Your task to perform on an android device: add a contact in the contacts app Image 0: 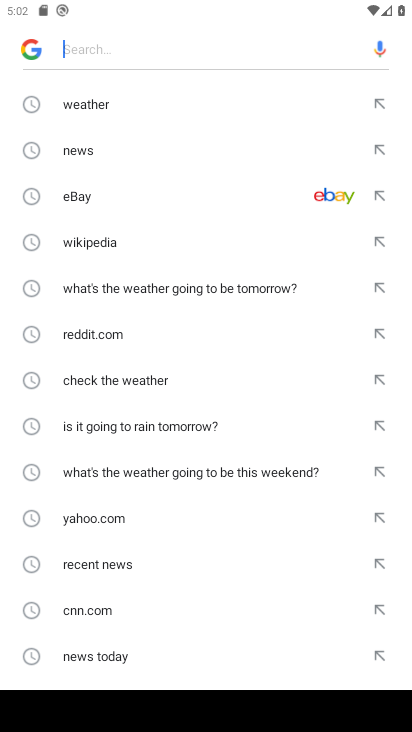
Step 0: press home button
Your task to perform on an android device: add a contact in the contacts app Image 1: 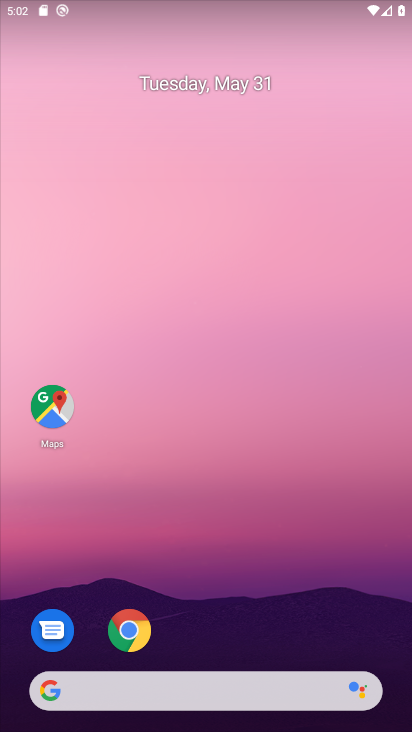
Step 1: drag from (236, 608) to (399, 307)
Your task to perform on an android device: add a contact in the contacts app Image 2: 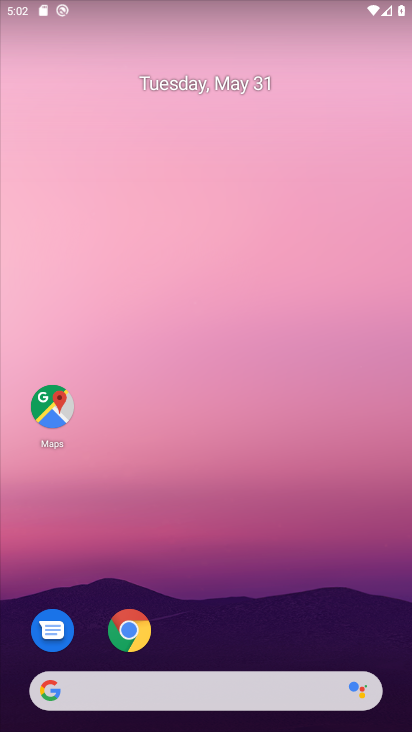
Step 2: drag from (239, 654) to (132, 37)
Your task to perform on an android device: add a contact in the contacts app Image 3: 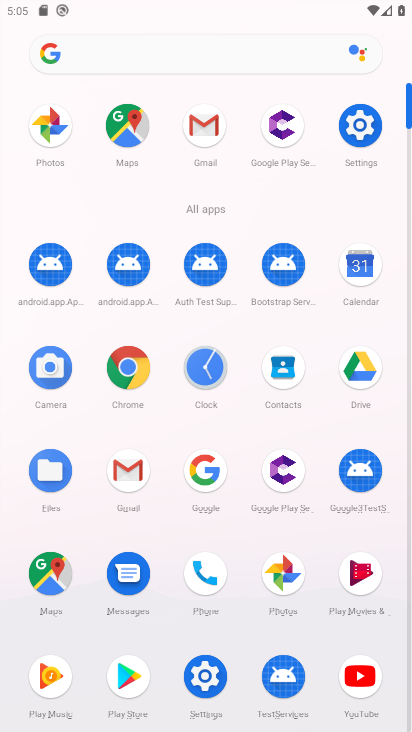
Step 3: click (292, 377)
Your task to perform on an android device: add a contact in the contacts app Image 4: 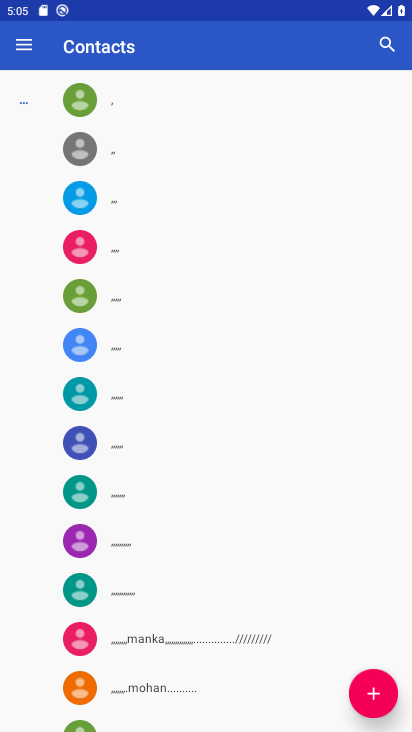
Step 4: click (367, 690)
Your task to perform on an android device: add a contact in the contacts app Image 5: 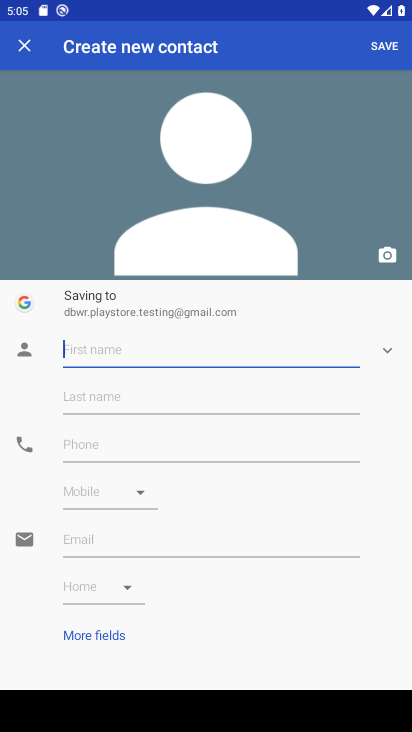
Step 5: type "qugfuegf"
Your task to perform on an android device: add a contact in the contacts app Image 6: 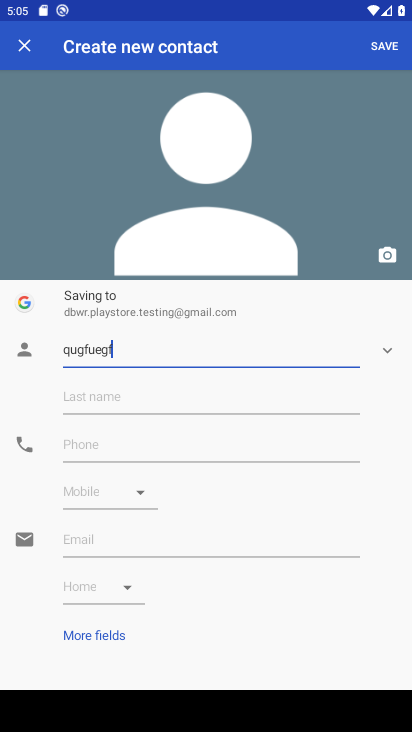
Step 6: click (55, 441)
Your task to perform on an android device: add a contact in the contacts app Image 7: 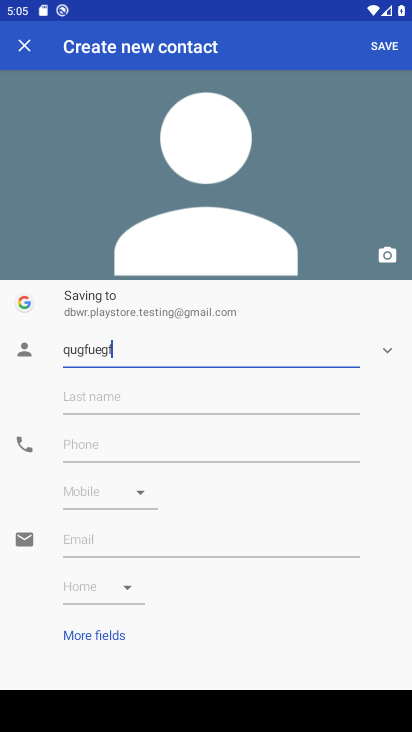
Step 7: click (175, 442)
Your task to perform on an android device: add a contact in the contacts app Image 8: 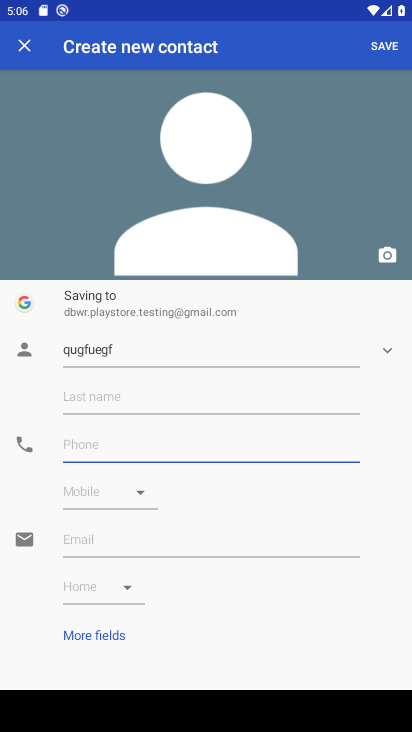
Step 8: type "678933000"
Your task to perform on an android device: add a contact in the contacts app Image 9: 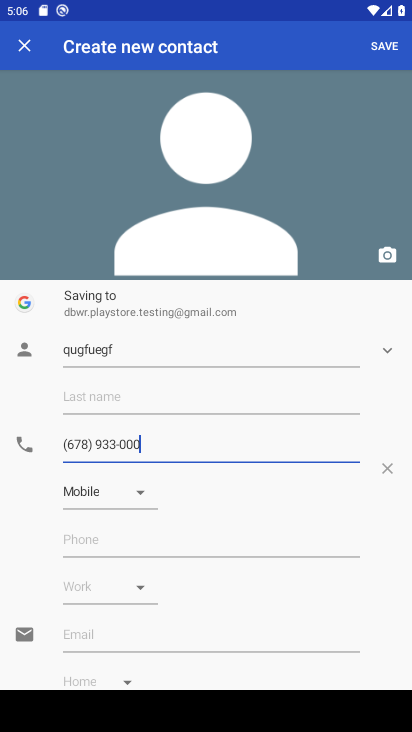
Step 9: click (375, 46)
Your task to perform on an android device: add a contact in the contacts app Image 10: 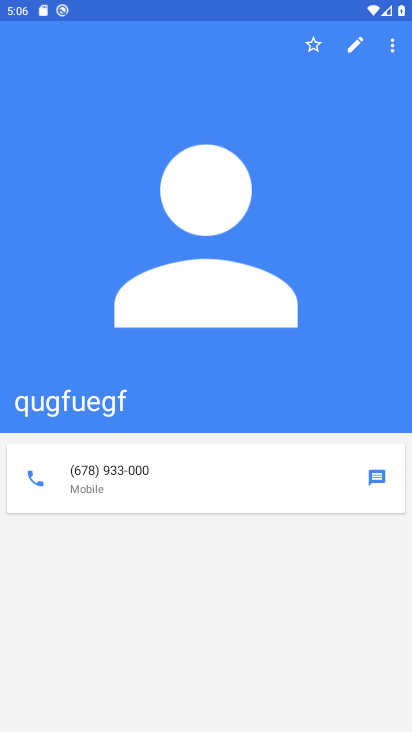
Step 10: task complete